Your task to perform on an android device: clear history in the chrome app Image 0: 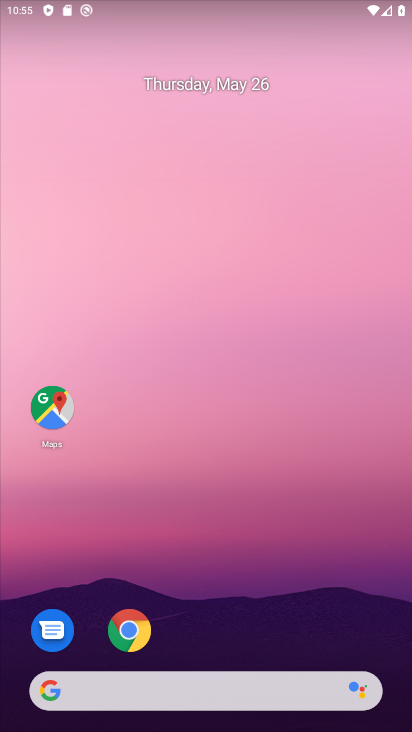
Step 0: click (130, 628)
Your task to perform on an android device: clear history in the chrome app Image 1: 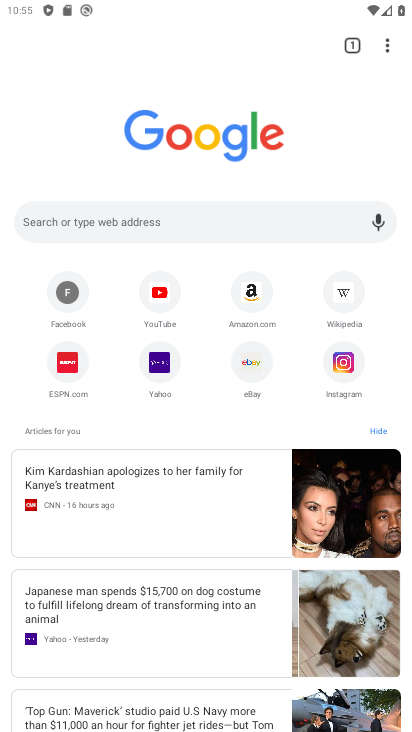
Step 1: click (388, 44)
Your task to perform on an android device: clear history in the chrome app Image 2: 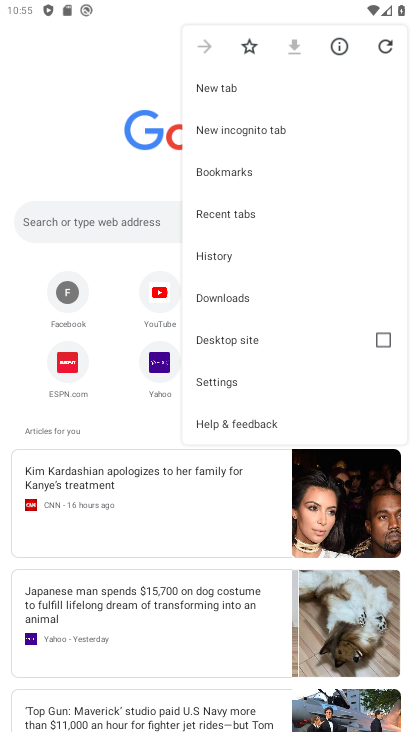
Step 2: click (217, 255)
Your task to perform on an android device: clear history in the chrome app Image 3: 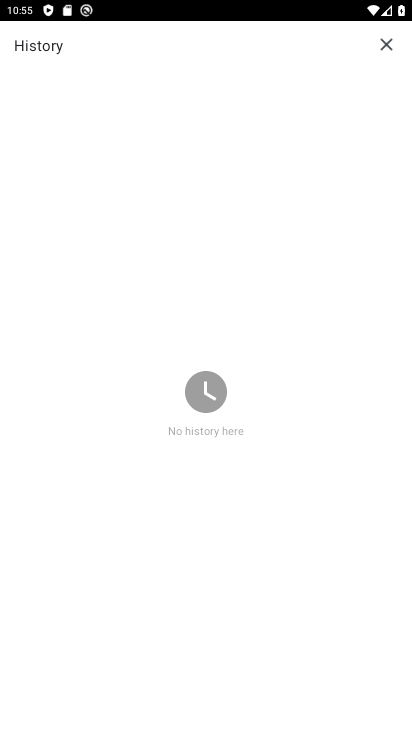
Step 3: task complete